Your task to perform on an android device: turn on bluetooth scan Image 0: 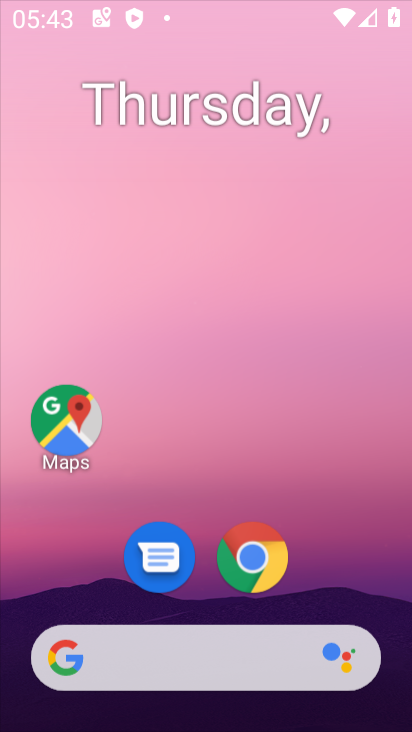
Step 0: drag from (302, 602) to (258, 129)
Your task to perform on an android device: turn on bluetooth scan Image 1: 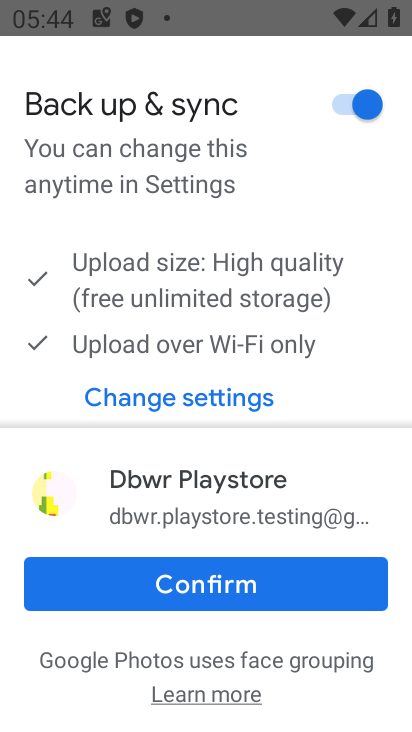
Step 1: click (209, 577)
Your task to perform on an android device: turn on bluetooth scan Image 2: 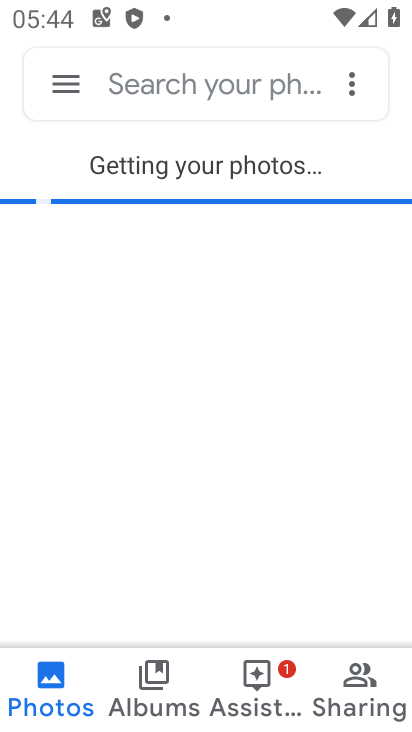
Step 2: press home button
Your task to perform on an android device: turn on bluetooth scan Image 3: 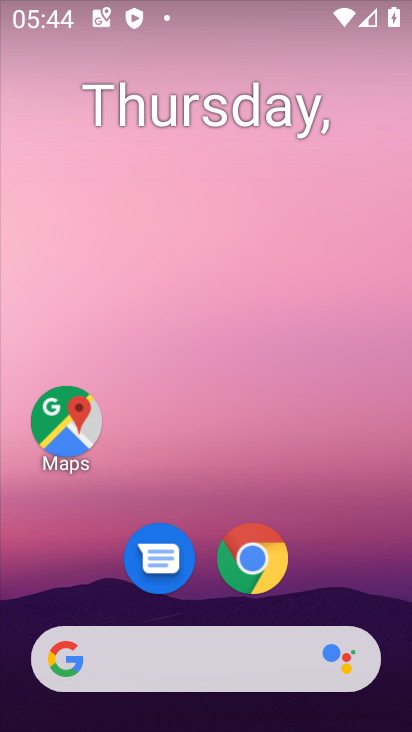
Step 3: drag from (339, 593) to (263, 50)
Your task to perform on an android device: turn on bluetooth scan Image 4: 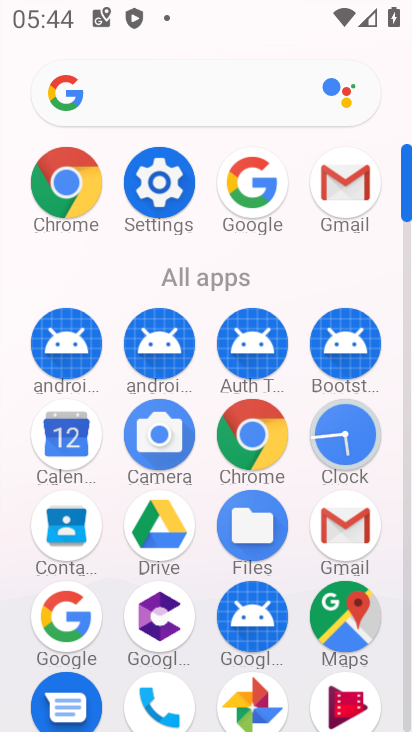
Step 4: click (161, 184)
Your task to perform on an android device: turn on bluetooth scan Image 5: 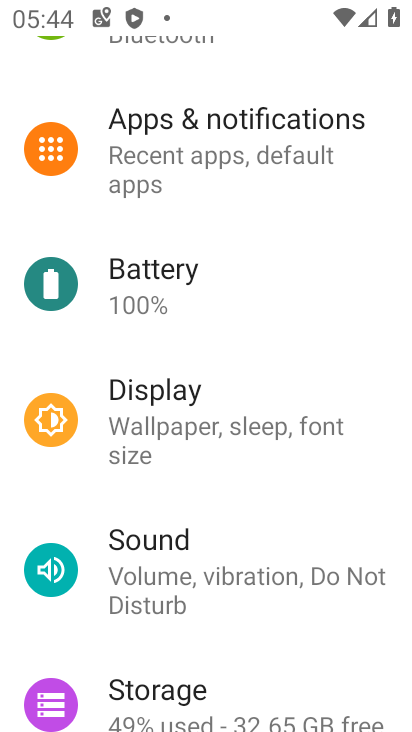
Step 5: drag from (179, 643) to (203, 240)
Your task to perform on an android device: turn on bluetooth scan Image 6: 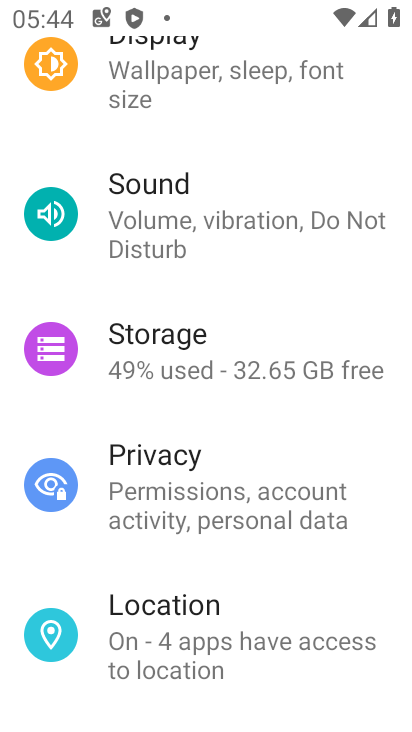
Step 6: drag from (189, 605) to (194, 202)
Your task to perform on an android device: turn on bluetooth scan Image 7: 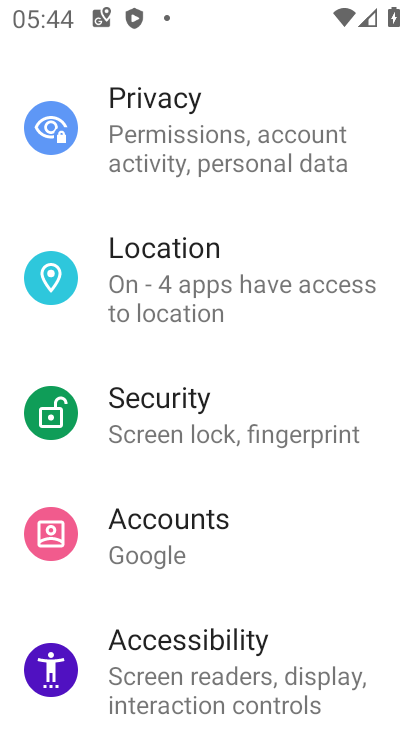
Step 7: click (164, 286)
Your task to perform on an android device: turn on bluetooth scan Image 8: 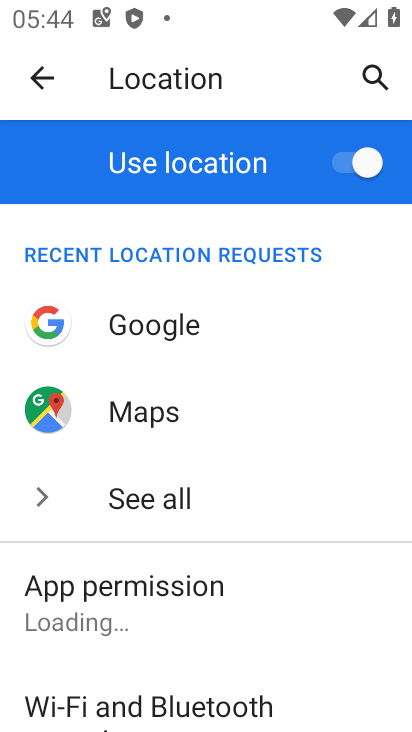
Step 8: drag from (180, 623) to (200, 119)
Your task to perform on an android device: turn on bluetooth scan Image 9: 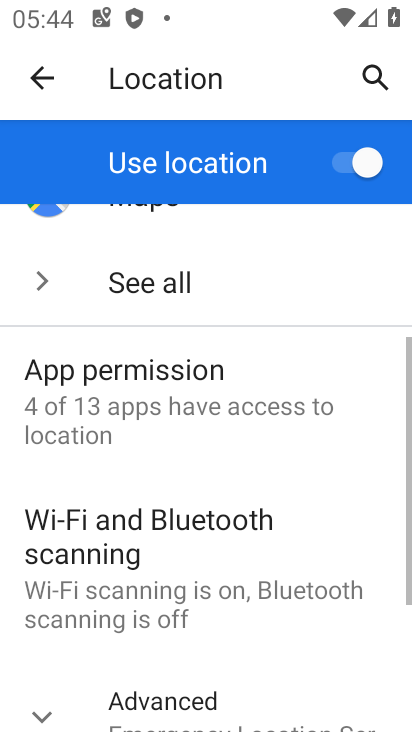
Step 9: drag from (202, 636) to (212, 188)
Your task to perform on an android device: turn on bluetooth scan Image 10: 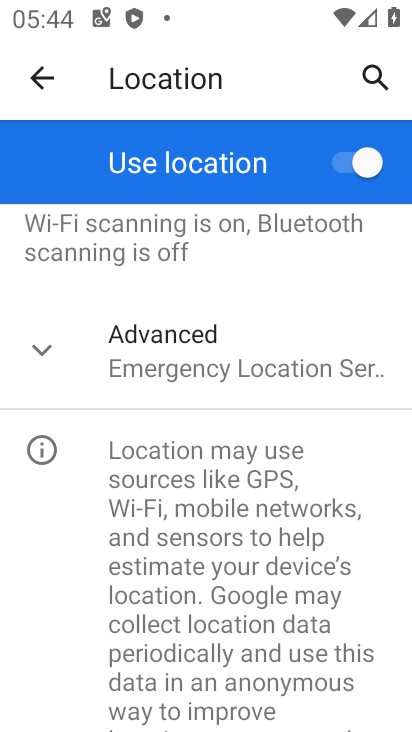
Step 10: click (144, 237)
Your task to perform on an android device: turn on bluetooth scan Image 11: 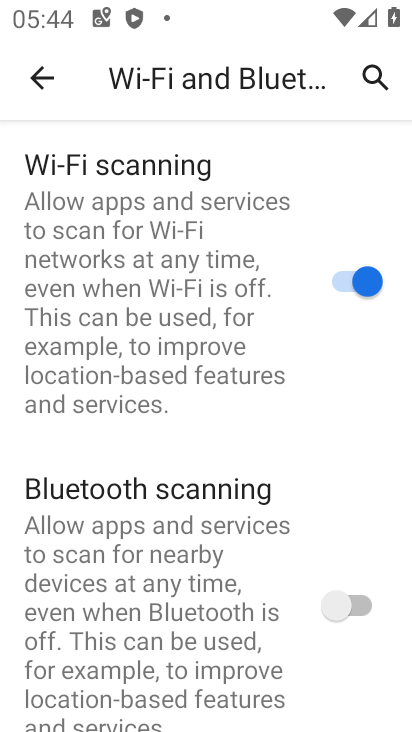
Step 11: click (364, 615)
Your task to perform on an android device: turn on bluetooth scan Image 12: 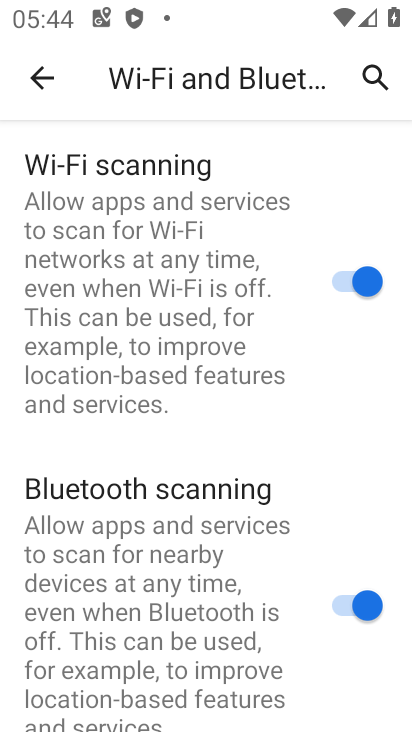
Step 12: task complete